Your task to perform on an android device: Open calendar and show me the first week of next month Image 0: 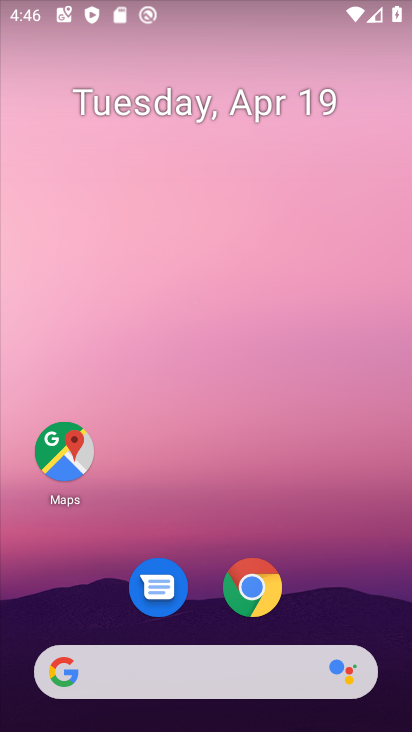
Step 0: drag from (321, 591) to (255, 40)
Your task to perform on an android device: Open calendar and show me the first week of next month Image 1: 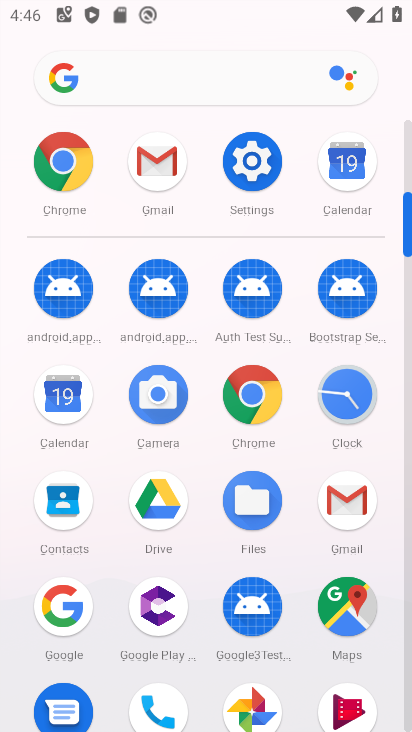
Step 1: drag from (4, 493) to (10, 263)
Your task to perform on an android device: Open calendar and show me the first week of next month Image 2: 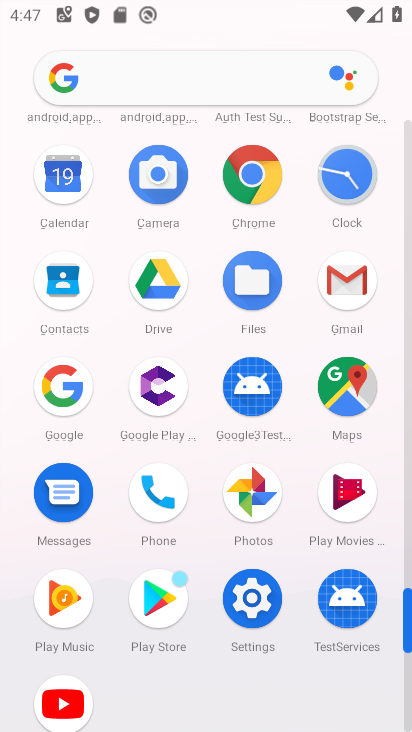
Step 2: drag from (13, 489) to (30, 216)
Your task to perform on an android device: Open calendar and show me the first week of next month Image 3: 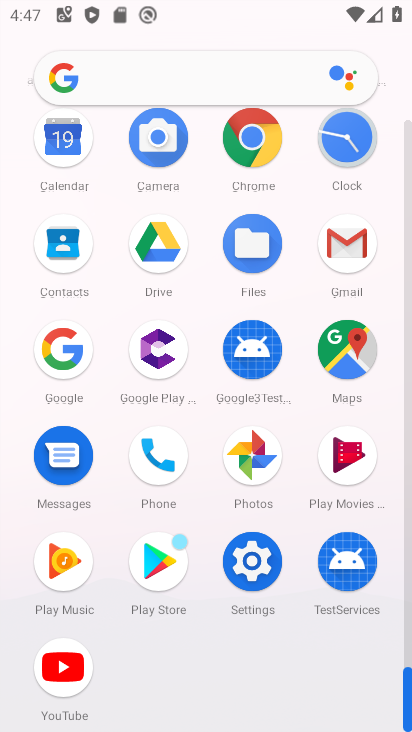
Step 3: drag from (16, 382) to (16, 168)
Your task to perform on an android device: Open calendar and show me the first week of next month Image 4: 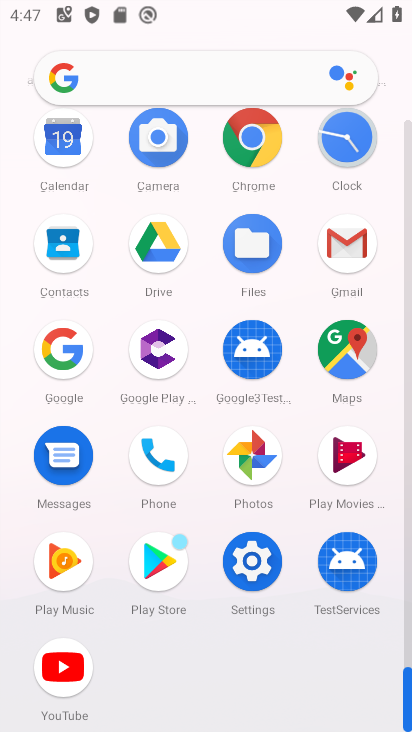
Step 4: drag from (23, 333) to (6, 588)
Your task to perform on an android device: Open calendar and show me the first week of next month Image 5: 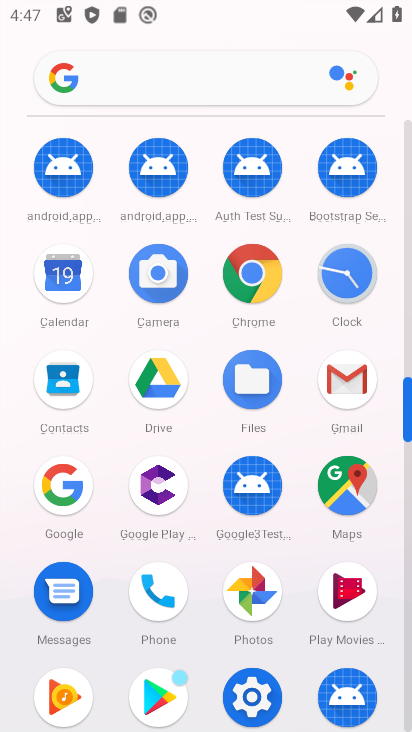
Step 5: click (50, 273)
Your task to perform on an android device: Open calendar and show me the first week of next month Image 6: 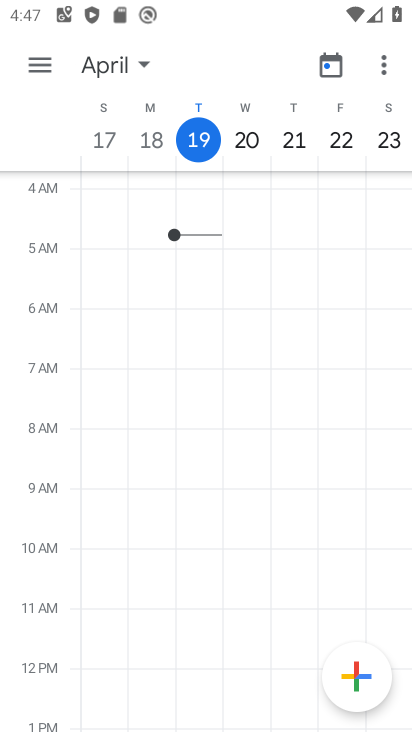
Step 6: click (130, 65)
Your task to perform on an android device: Open calendar and show me the first week of next month Image 7: 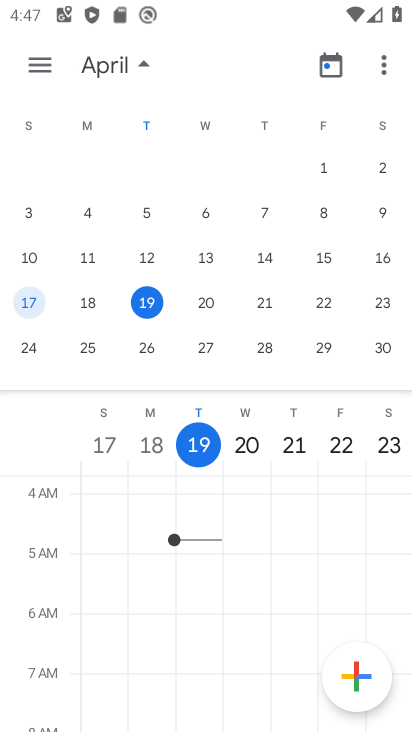
Step 7: drag from (384, 271) to (0, 140)
Your task to perform on an android device: Open calendar and show me the first week of next month Image 8: 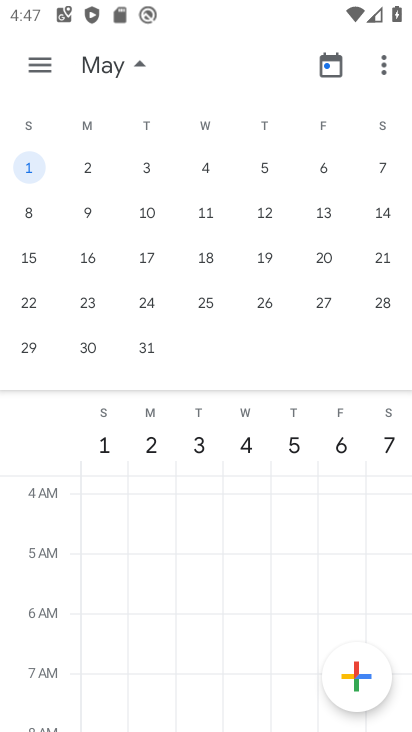
Step 8: click (86, 179)
Your task to perform on an android device: Open calendar and show me the first week of next month Image 9: 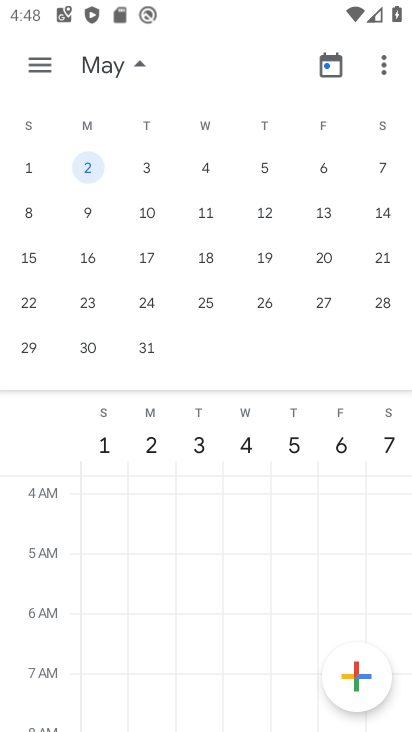
Step 9: click (42, 69)
Your task to perform on an android device: Open calendar and show me the first week of next month Image 10: 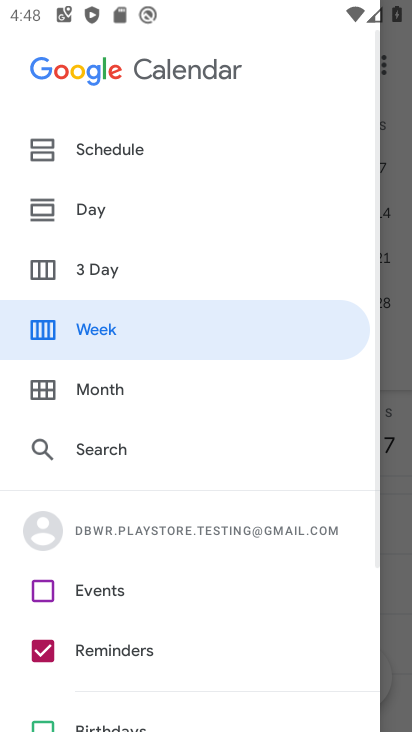
Step 10: click (130, 332)
Your task to perform on an android device: Open calendar and show me the first week of next month Image 11: 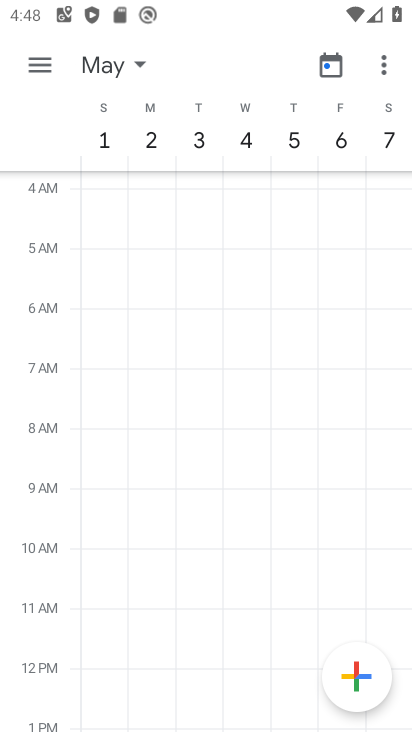
Step 11: task complete